Your task to perform on an android device: find snoozed emails in the gmail app Image 0: 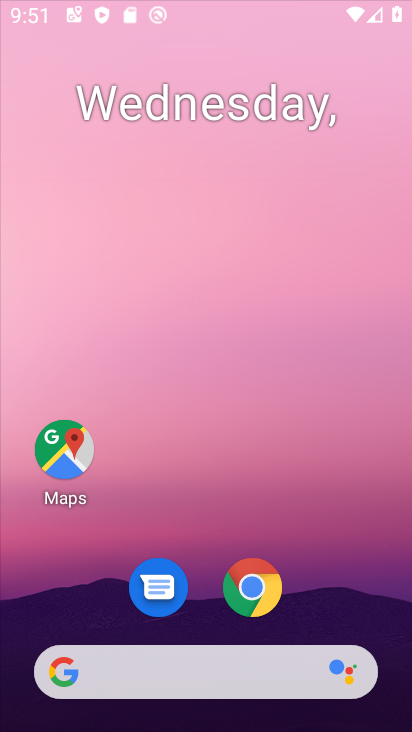
Step 0: press home button
Your task to perform on an android device: find snoozed emails in the gmail app Image 1: 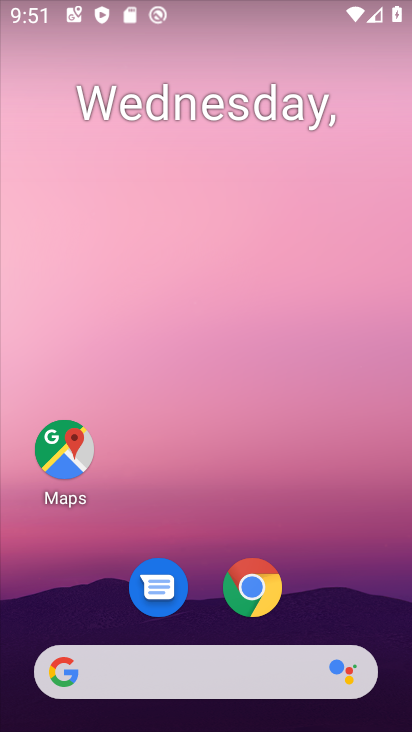
Step 1: drag from (309, 607) to (249, 221)
Your task to perform on an android device: find snoozed emails in the gmail app Image 2: 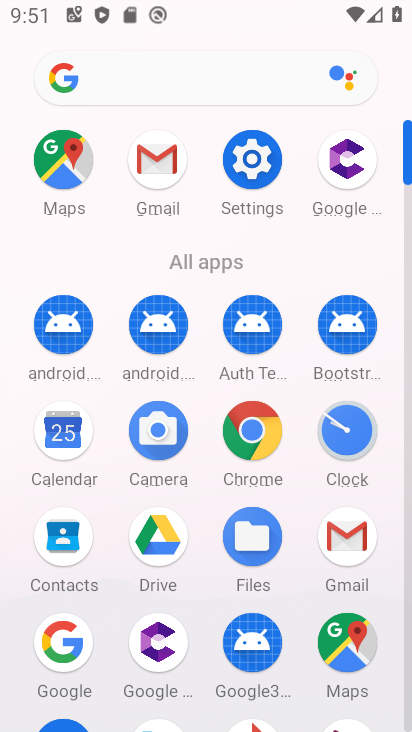
Step 2: click (152, 174)
Your task to perform on an android device: find snoozed emails in the gmail app Image 3: 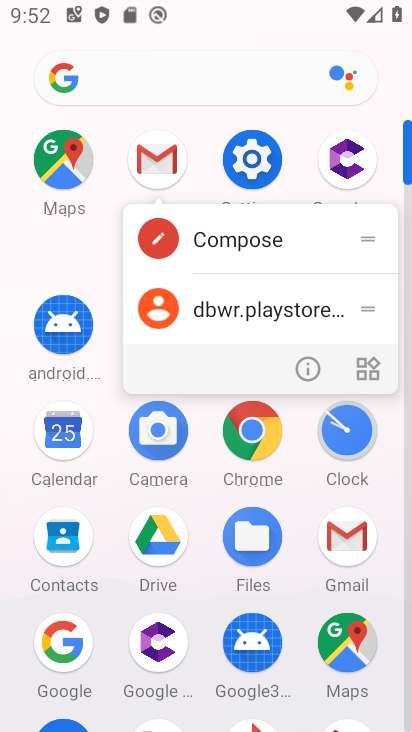
Step 3: click (151, 171)
Your task to perform on an android device: find snoozed emails in the gmail app Image 4: 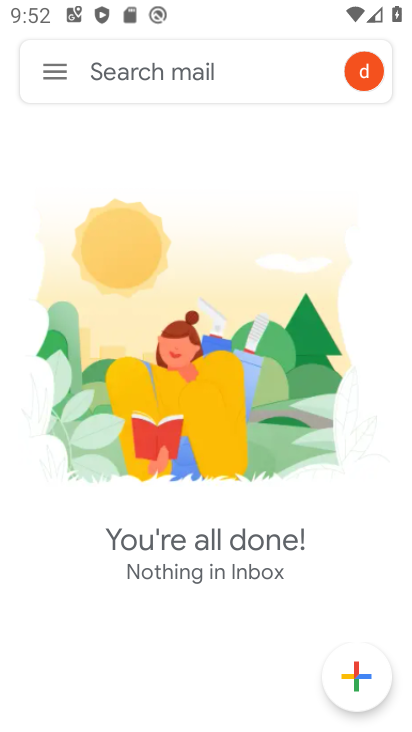
Step 4: click (70, 78)
Your task to perform on an android device: find snoozed emails in the gmail app Image 5: 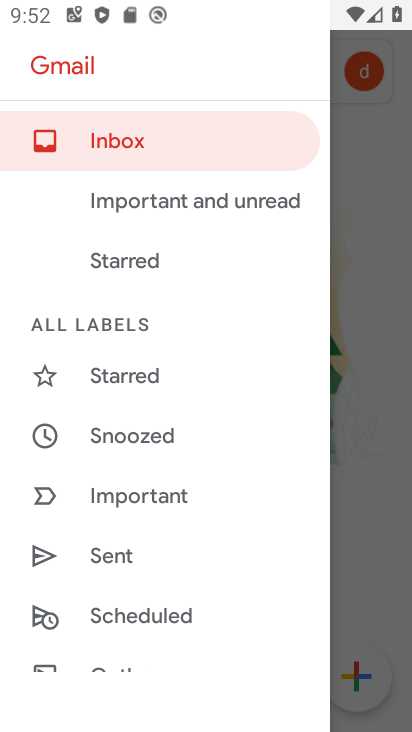
Step 5: click (128, 441)
Your task to perform on an android device: find snoozed emails in the gmail app Image 6: 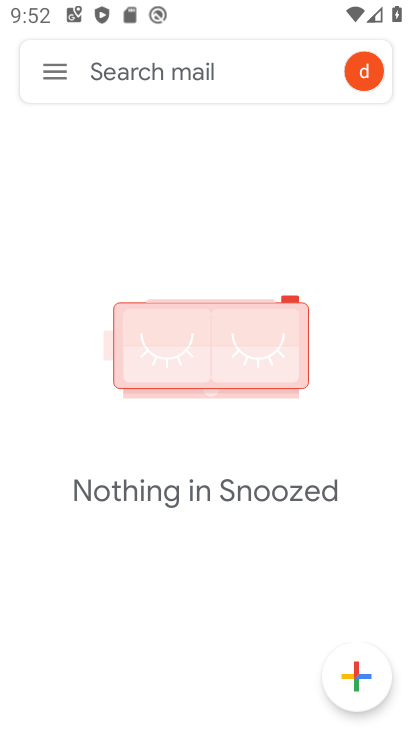
Step 6: task complete